Your task to perform on an android device: open chrome privacy settings Image 0: 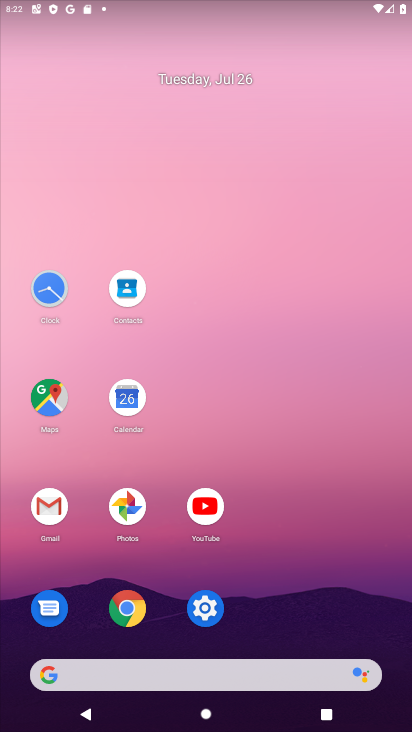
Step 0: click (129, 613)
Your task to perform on an android device: open chrome privacy settings Image 1: 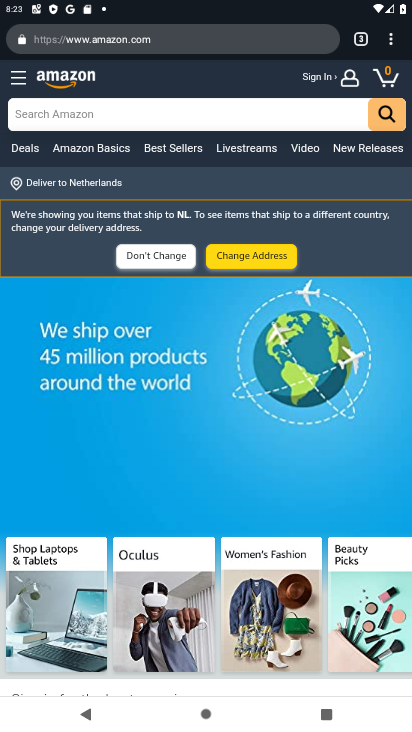
Step 1: click (390, 40)
Your task to perform on an android device: open chrome privacy settings Image 2: 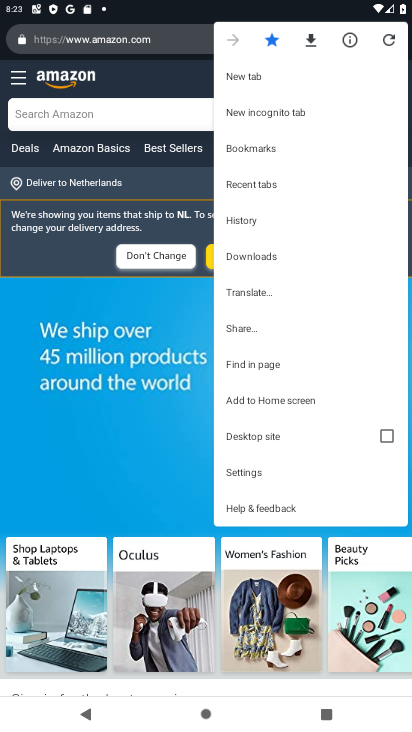
Step 2: click (243, 471)
Your task to perform on an android device: open chrome privacy settings Image 3: 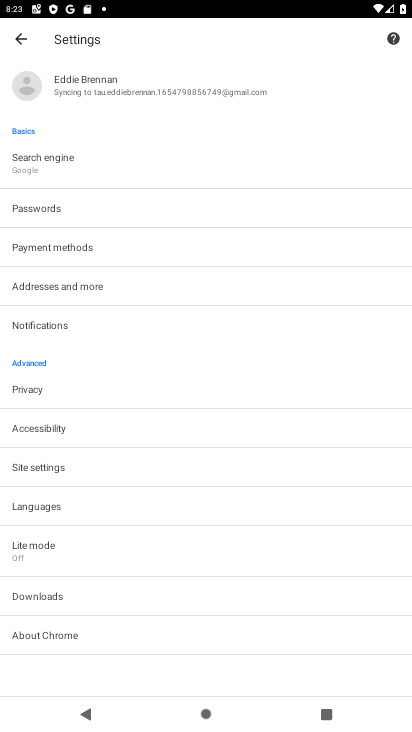
Step 3: click (24, 388)
Your task to perform on an android device: open chrome privacy settings Image 4: 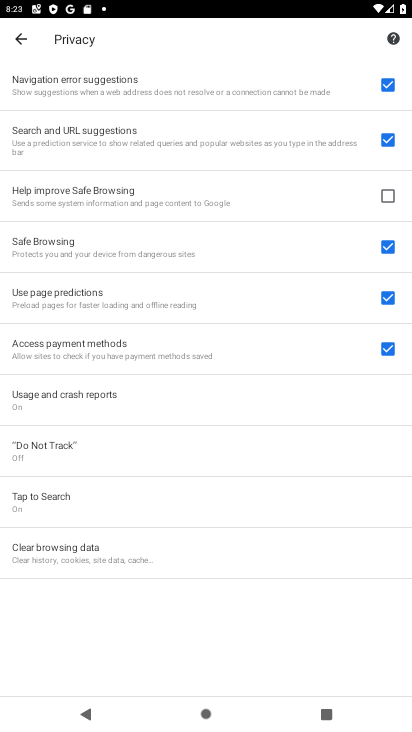
Step 4: task complete